Your task to perform on an android device: create a new album in the google photos Image 0: 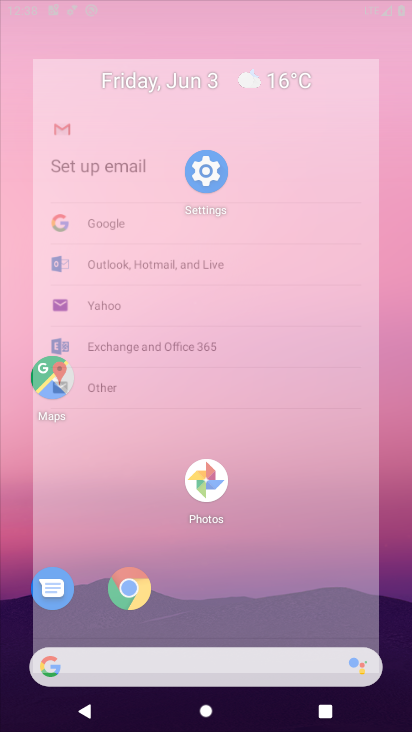
Step 0: drag from (186, 618) to (190, 441)
Your task to perform on an android device: create a new album in the google photos Image 1: 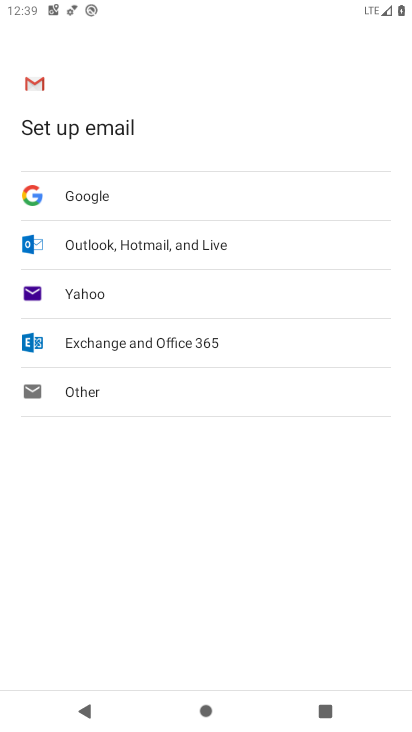
Step 1: drag from (200, 523) to (246, 255)
Your task to perform on an android device: create a new album in the google photos Image 2: 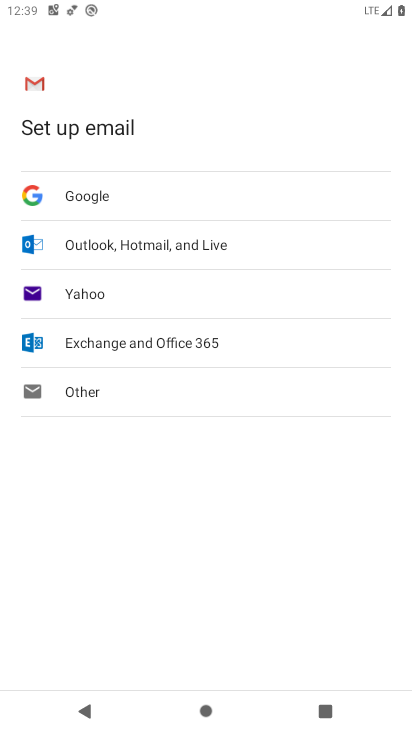
Step 2: press home button
Your task to perform on an android device: create a new album in the google photos Image 3: 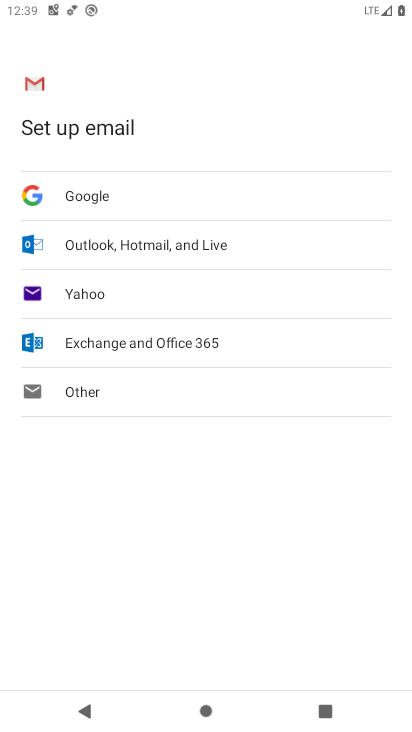
Step 3: drag from (322, 602) to (309, 47)
Your task to perform on an android device: create a new album in the google photos Image 4: 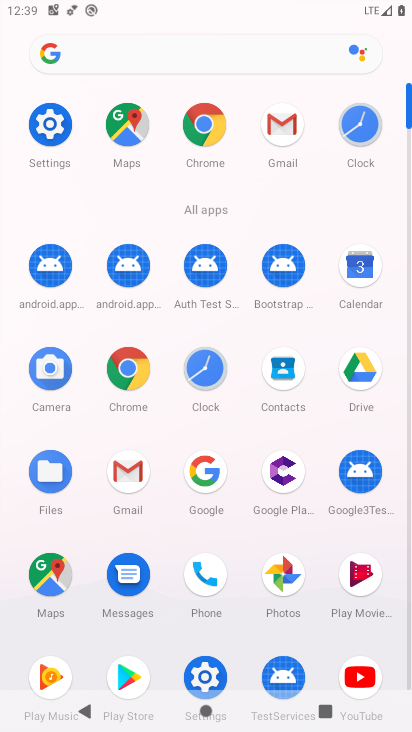
Step 4: click (276, 585)
Your task to perform on an android device: create a new album in the google photos Image 5: 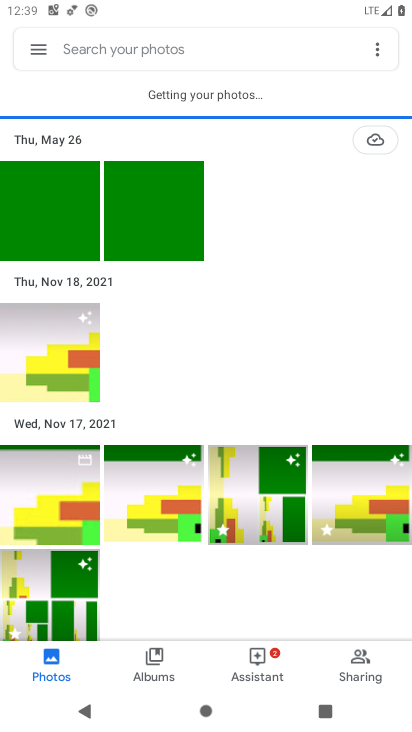
Step 5: drag from (283, 591) to (291, 413)
Your task to perform on an android device: create a new album in the google photos Image 6: 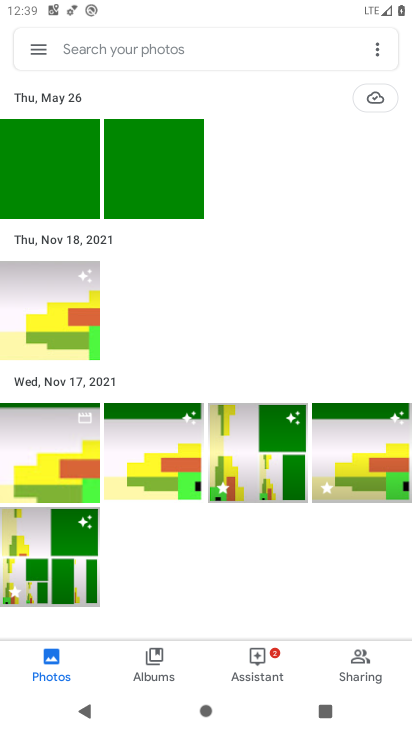
Step 6: click (158, 661)
Your task to perform on an android device: create a new album in the google photos Image 7: 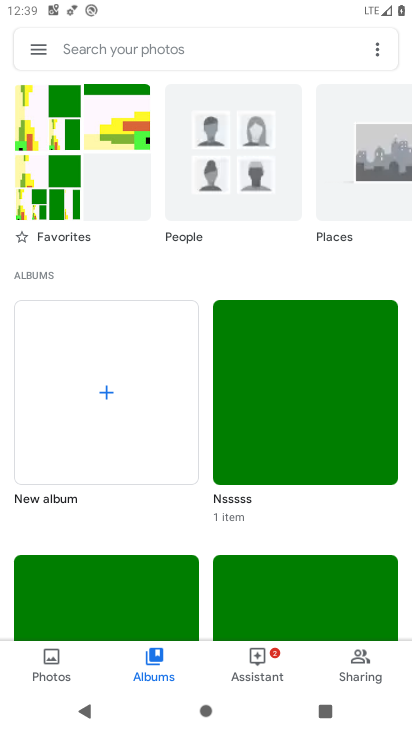
Step 7: click (94, 401)
Your task to perform on an android device: create a new album in the google photos Image 8: 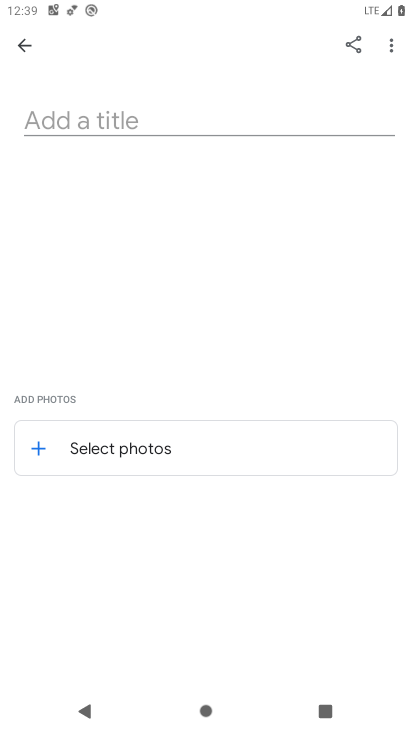
Step 8: click (77, 124)
Your task to perform on an android device: create a new album in the google photos Image 9: 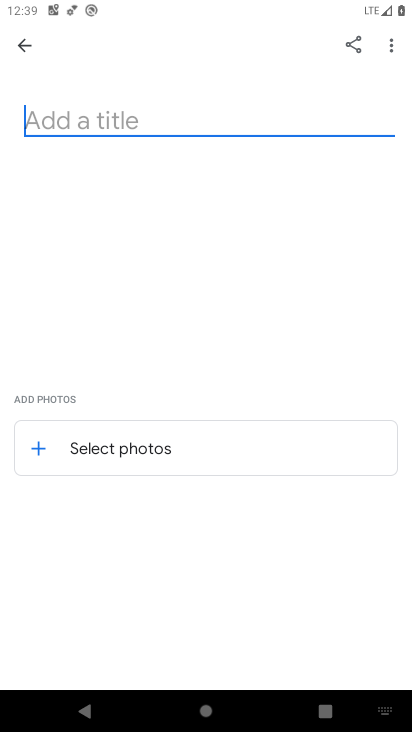
Step 9: type "sdaf"
Your task to perform on an android device: create a new album in the google photos Image 10: 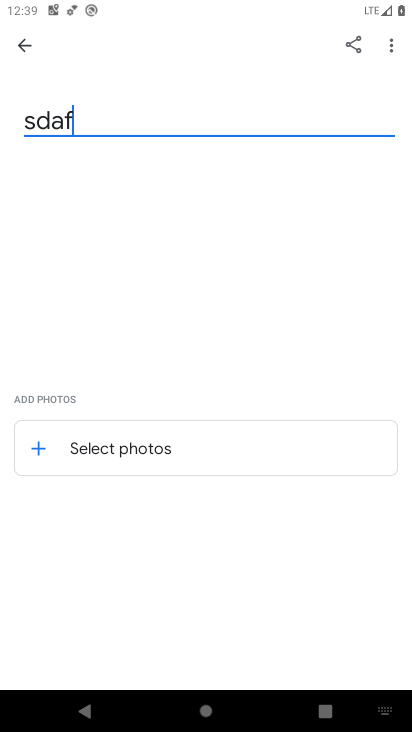
Step 10: click (32, 452)
Your task to perform on an android device: create a new album in the google photos Image 11: 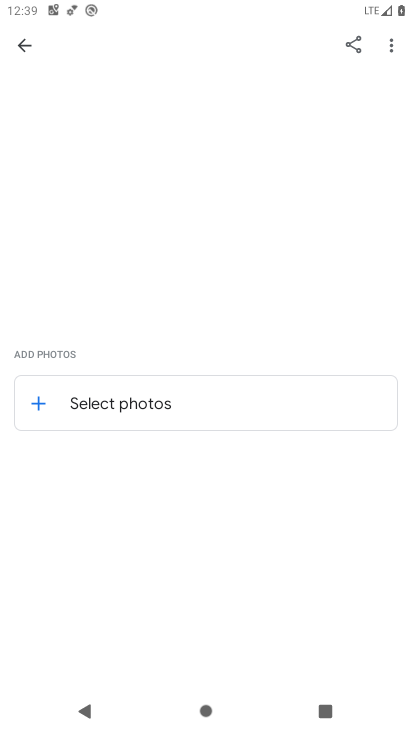
Step 11: click (41, 406)
Your task to perform on an android device: create a new album in the google photos Image 12: 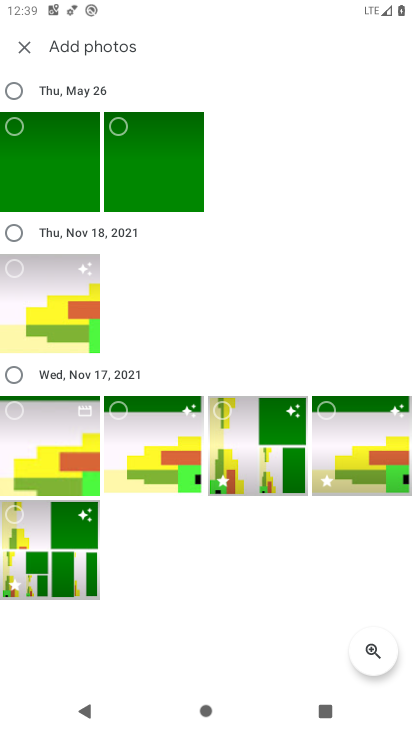
Step 12: click (46, 283)
Your task to perform on an android device: create a new album in the google photos Image 13: 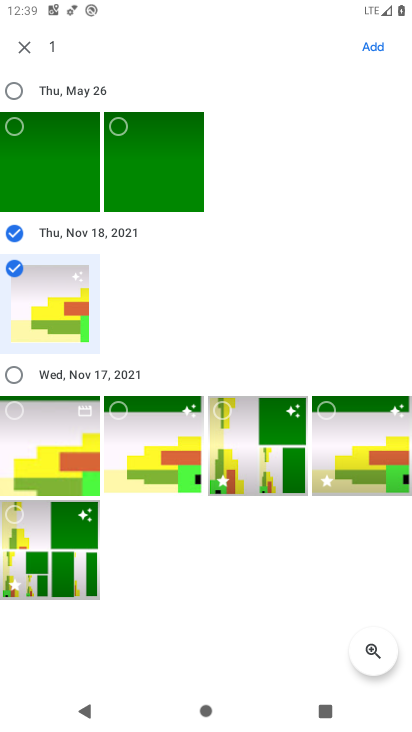
Step 13: click (160, 459)
Your task to perform on an android device: create a new album in the google photos Image 14: 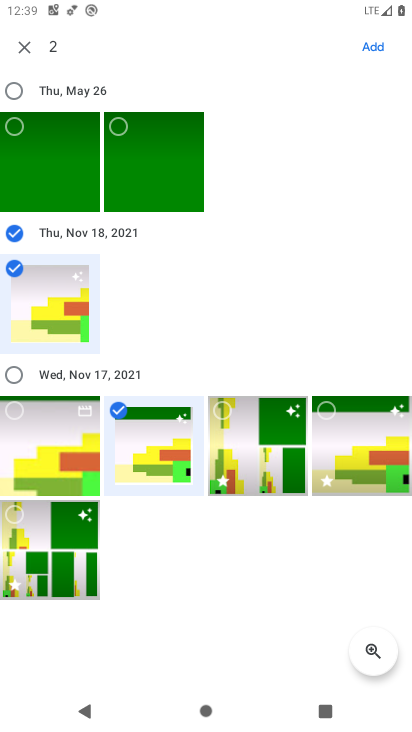
Step 14: click (265, 456)
Your task to perform on an android device: create a new album in the google photos Image 15: 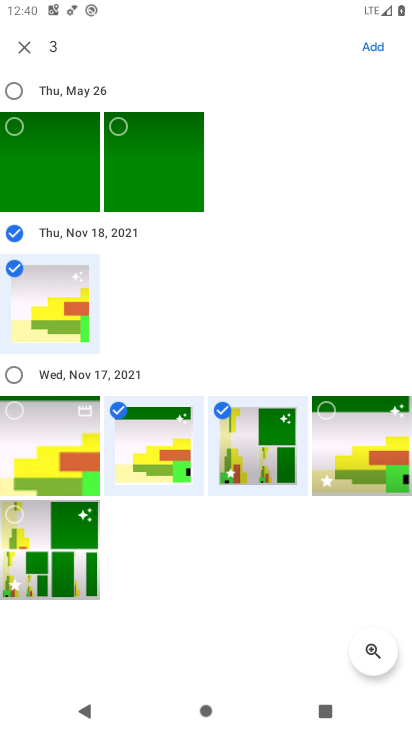
Step 15: click (371, 47)
Your task to perform on an android device: create a new album in the google photos Image 16: 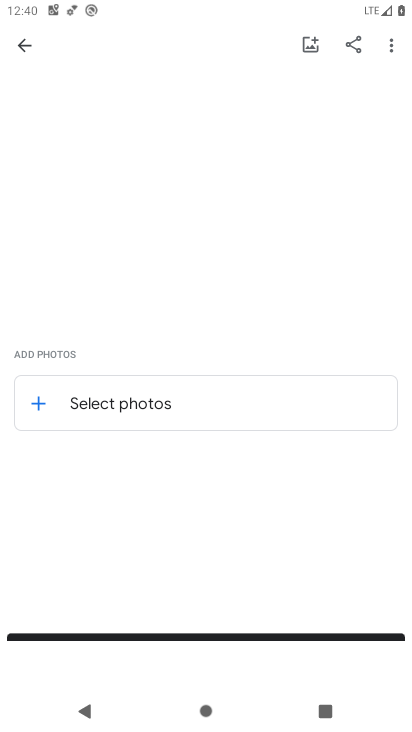
Step 16: task complete